Your task to perform on an android device: set the timer Image 0: 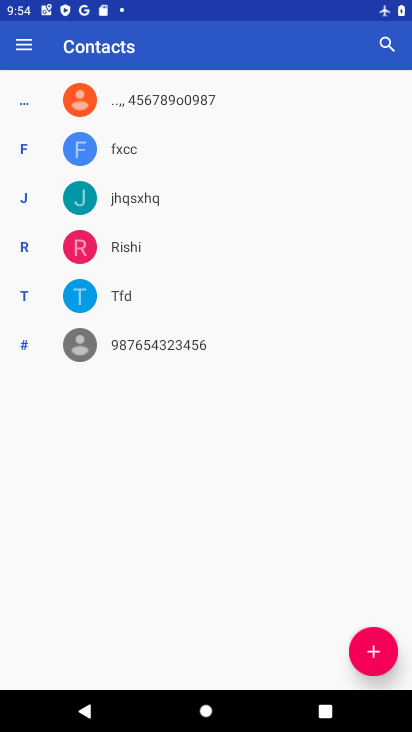
Step 0: press home button
Your task to perform on an android device: set the timer Image 1: 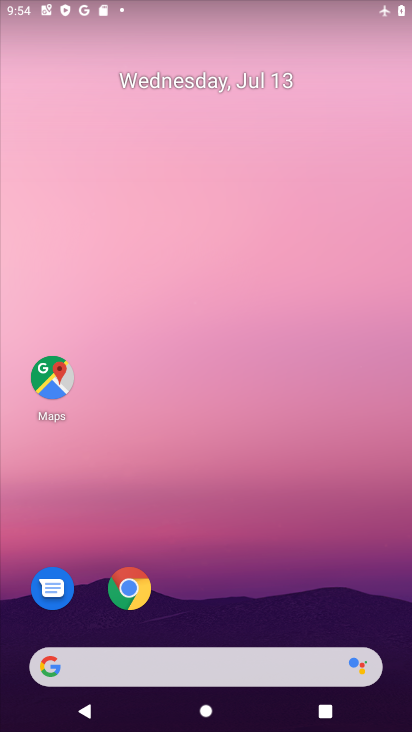
Step 1: drag from (223, 609) to (256, 100)
Your task to perform on an android device: set the timer Image 2: 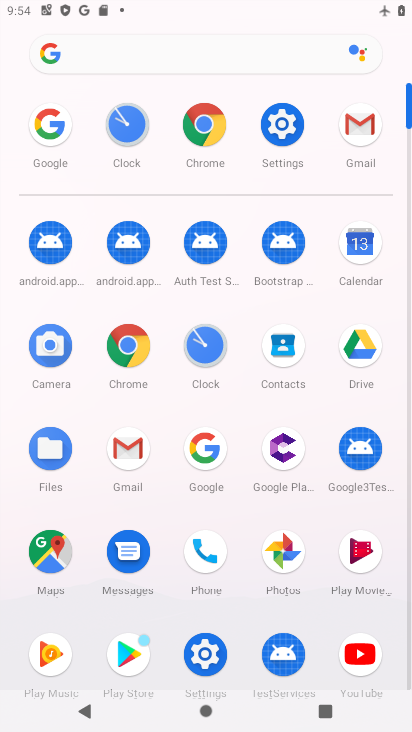
Step 2: click (119, 127)
Your task to perform on an android device: set the timer Image 3: 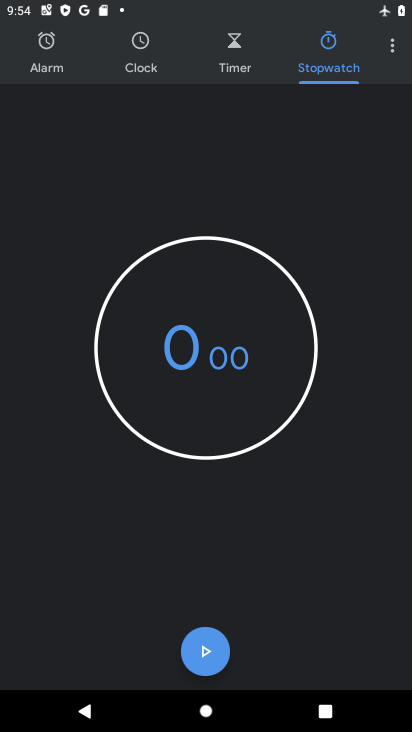
Step 3: click (234, 59)
Your task to perform on an android device: set the timer Image 4: 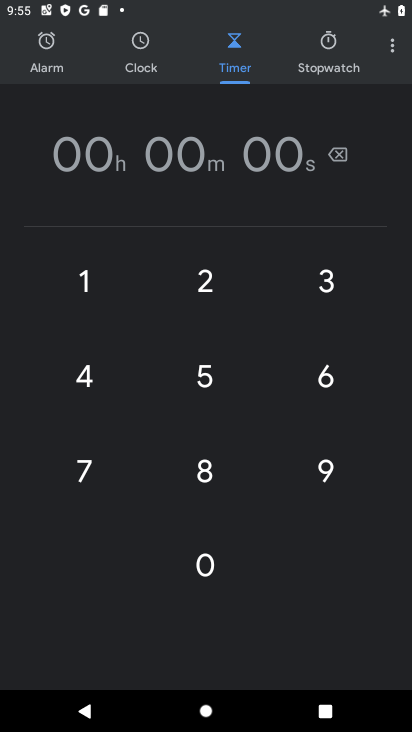
Step 4: click (205, 380)
Your task to perform on an android device: set the timer Image 5: 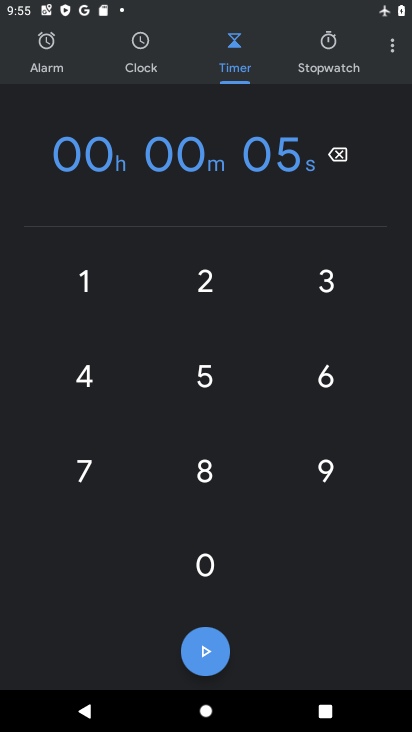
Step 5: click (213, 357)
Your task to perform on an android device: set the timer Image 6: 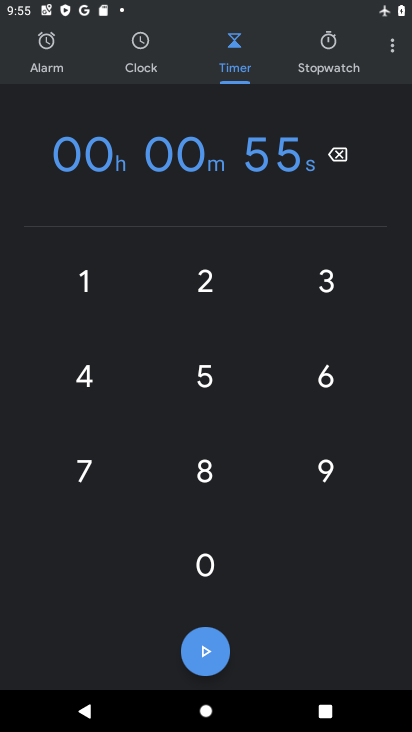
Step 6: task complete